Your task to perform on an android device: open app "Google Photos" Image 0: 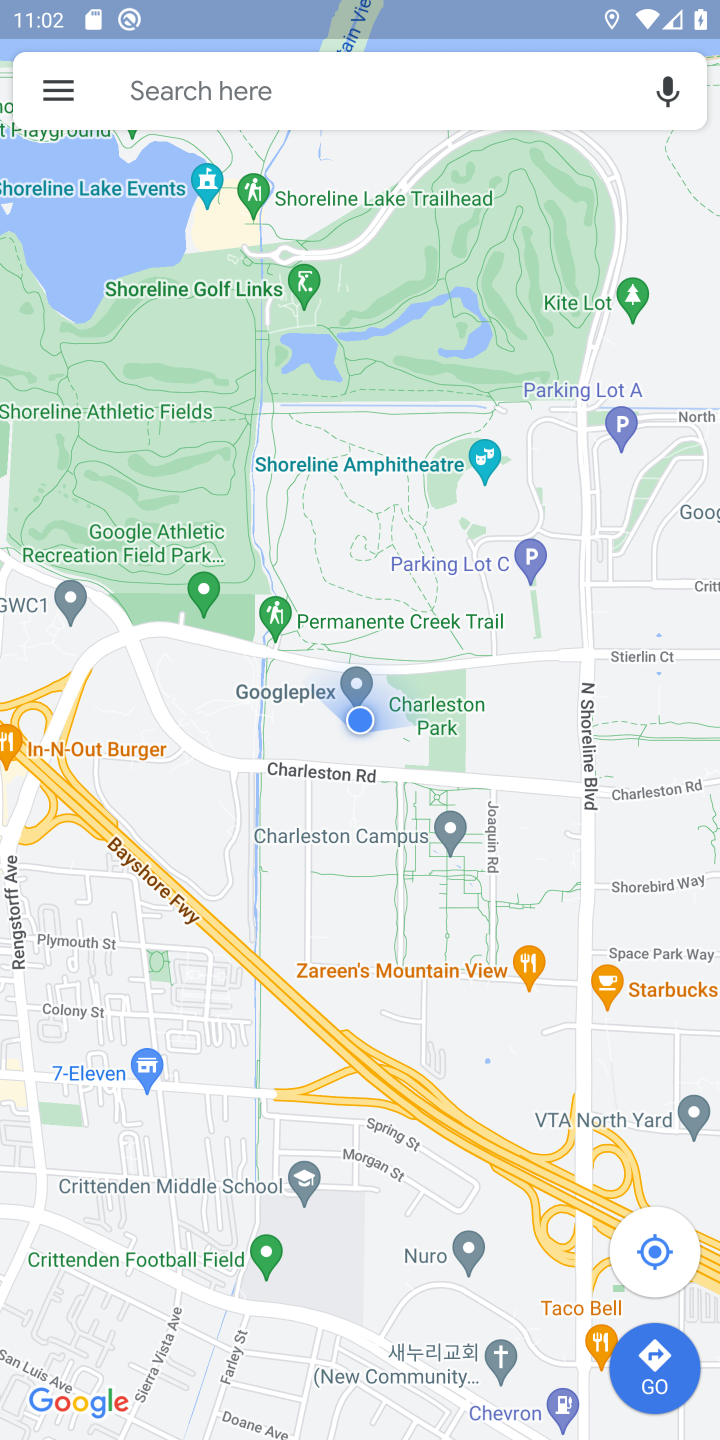
Step 0: press home button
Your task to perform on an android device: open app "Google Photos" Image 1: 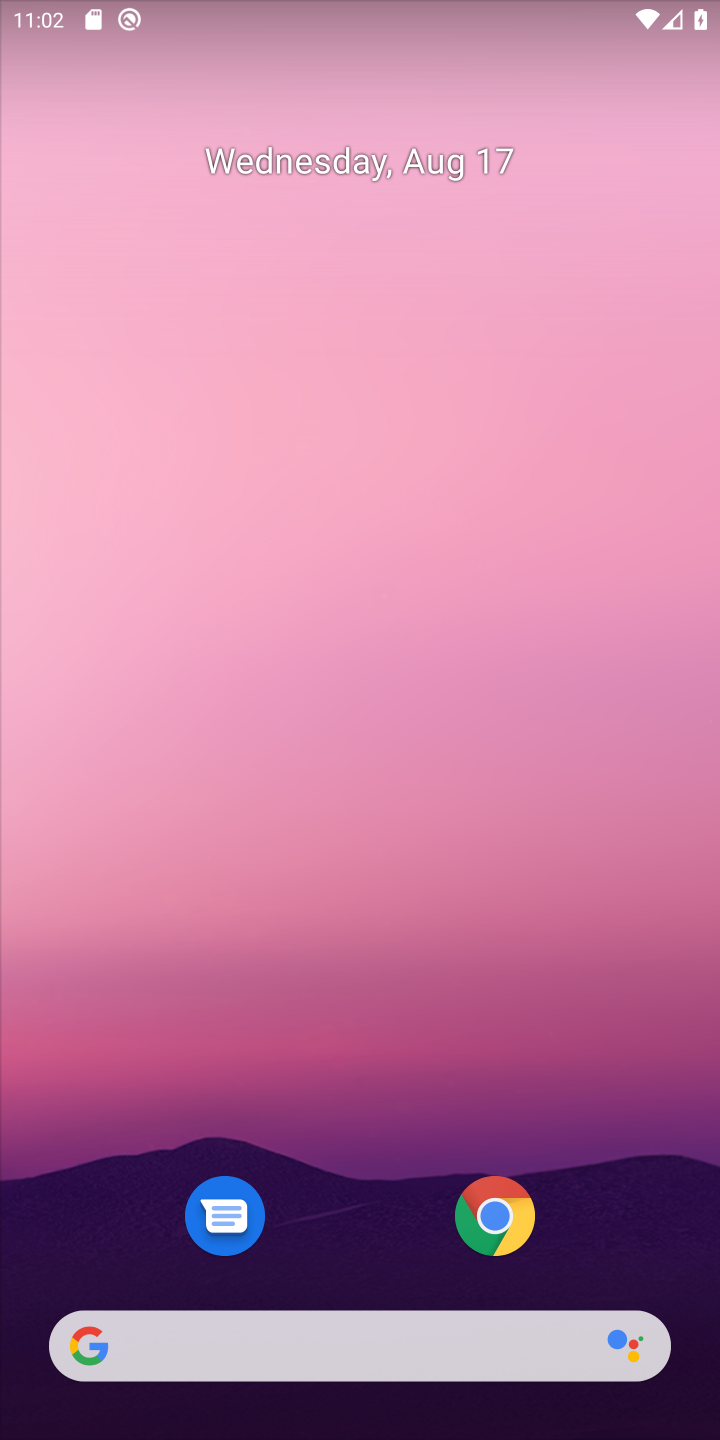
Step 1: drag from (587, 1173) to (540, 269)
Your task to perform on an android device: open app "Google Photos" Image 2: 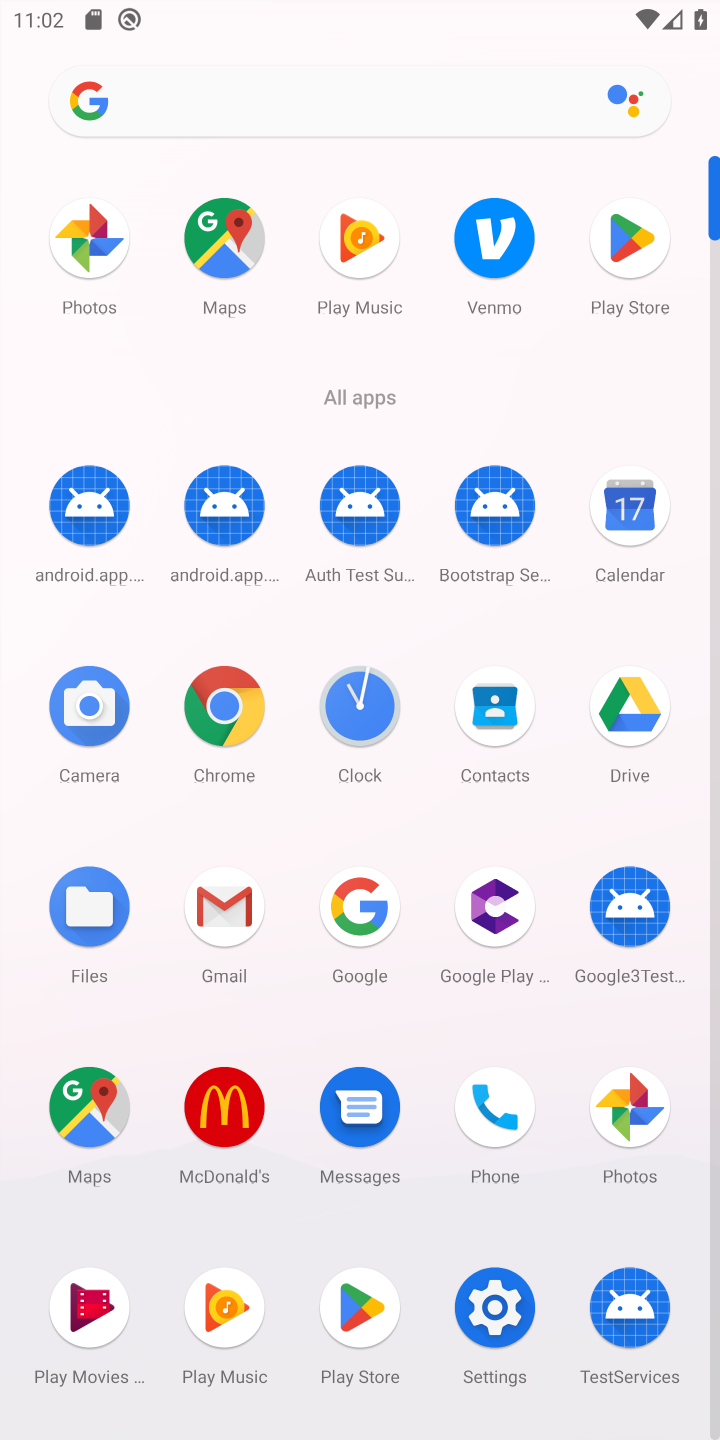
Step 2: click (643, 1095)
Your task to perform on an android device: open app "Google Photos" Image 3: 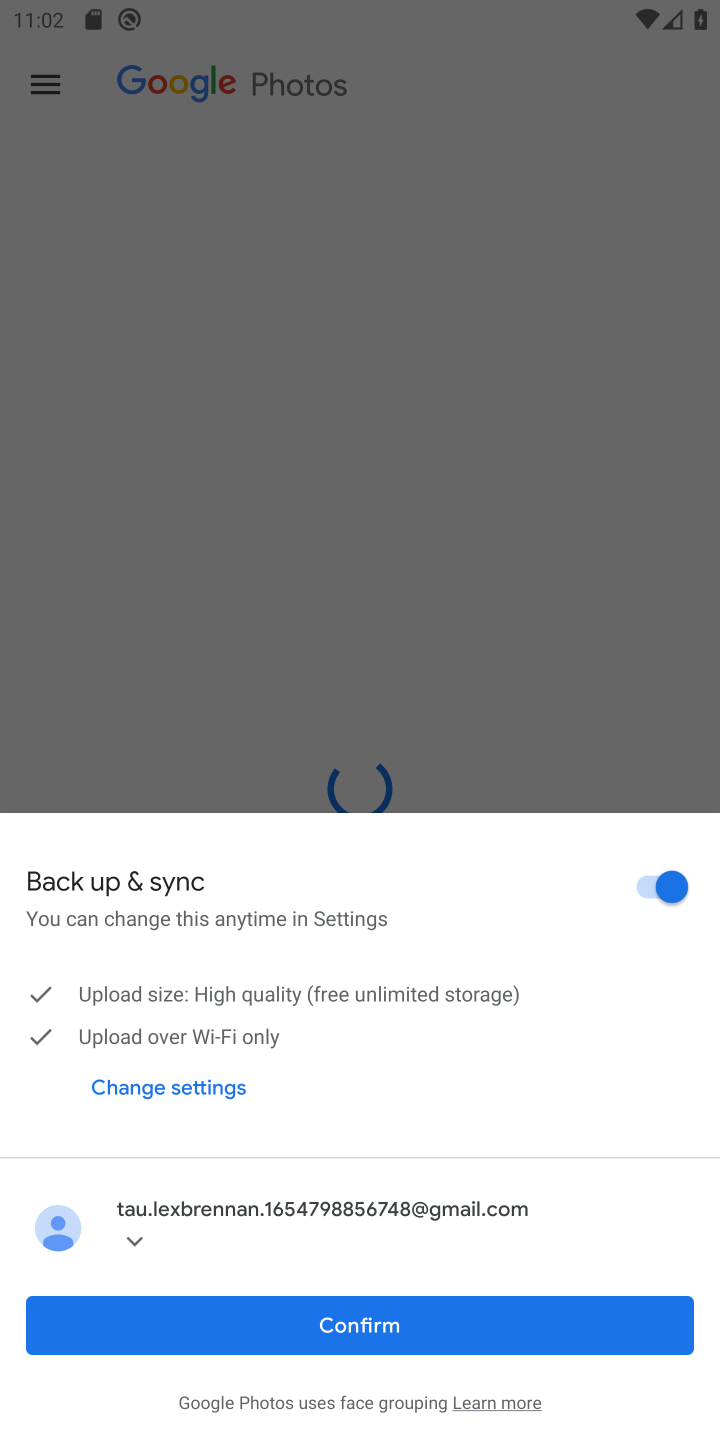
Step 3: click (345, 1325)
Your task to perform on an android device: open app "Google Photos" Image 4: 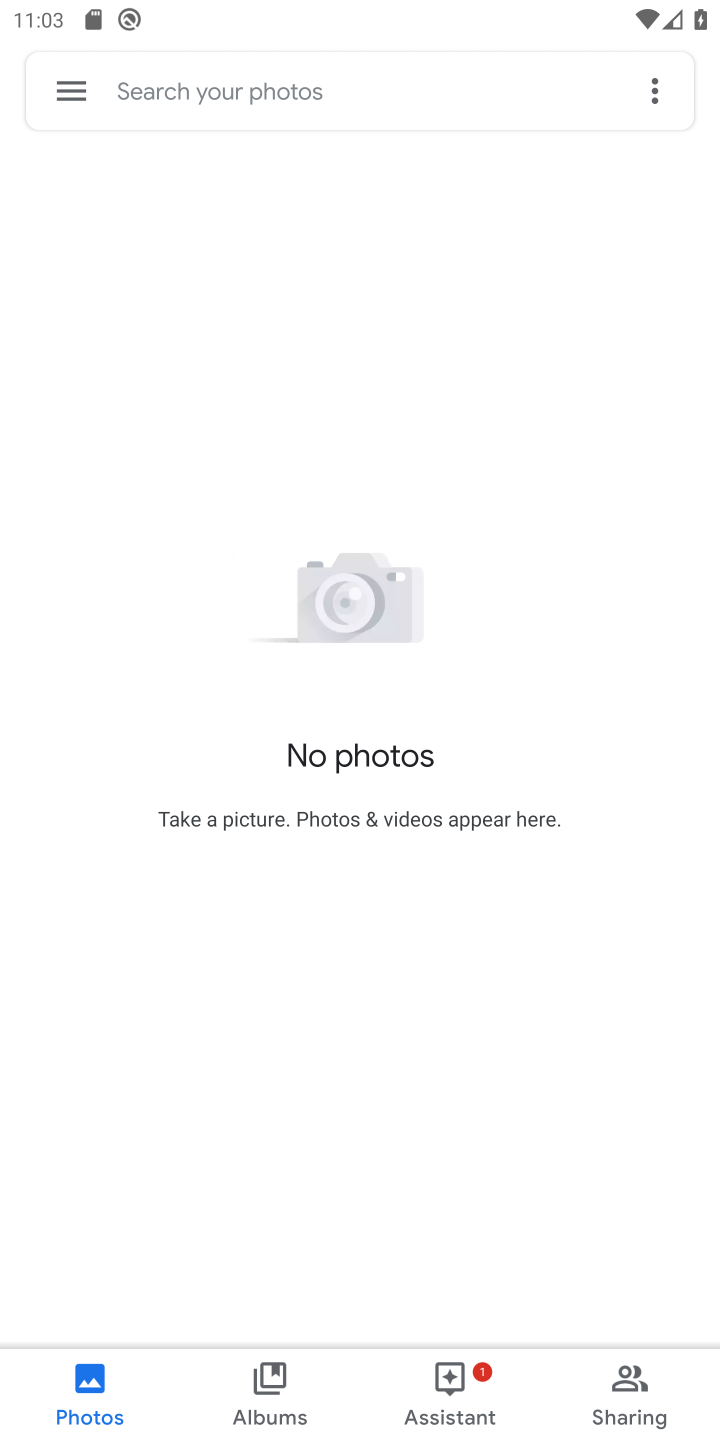
Step 4: task complete